Your task to perform on an android device: turn on data saver in the chrome app Image 0: 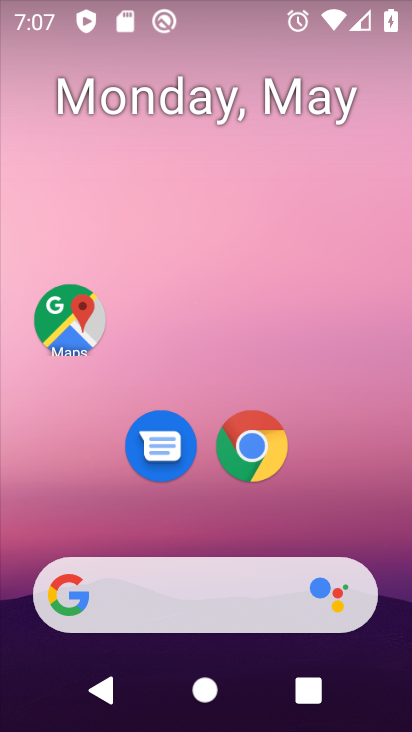
Step 0: click (251, 441)
Your task to perform on an android device: turn on data saver in the chrome app Image 1: 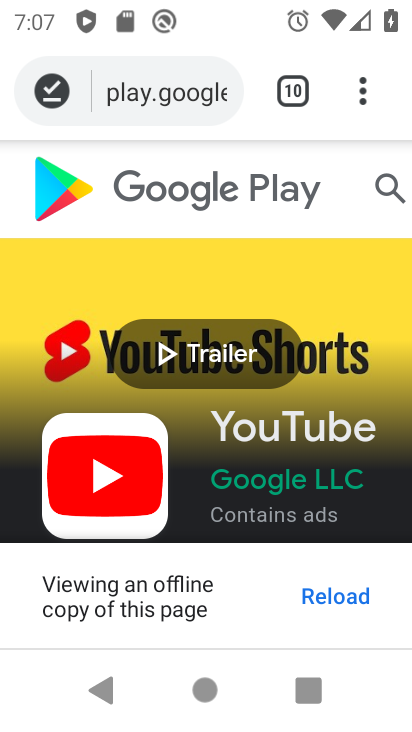
Step 1: click (359, 87)
Your task to perform on an android device: turn on data saver in the chrome app Image 2: 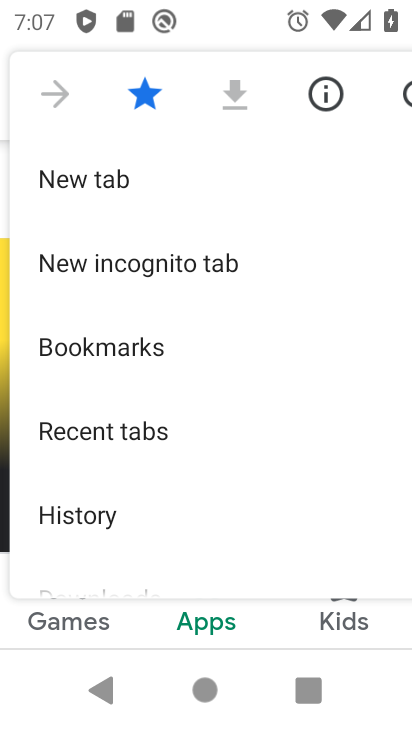
Step 2: drag from (218, 506) to (155, 202)
Your task to perform on an android device: turn on data saver in the chrome app Image 3: 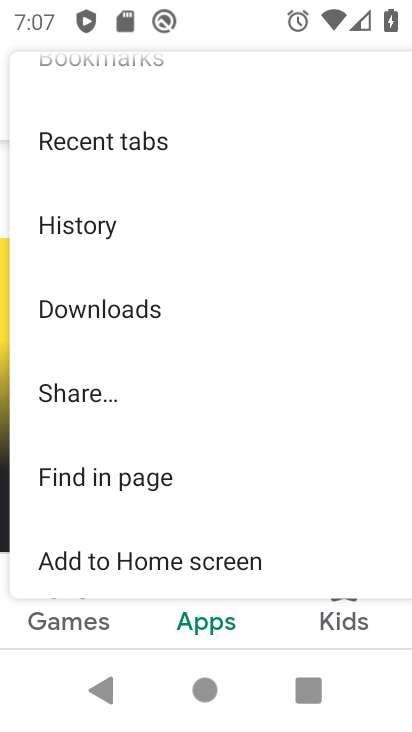
Step 3: drag from (170, 528) to (85, 45)
Your task to perform on an android device: turn on data saver in the chrome app Image 4: 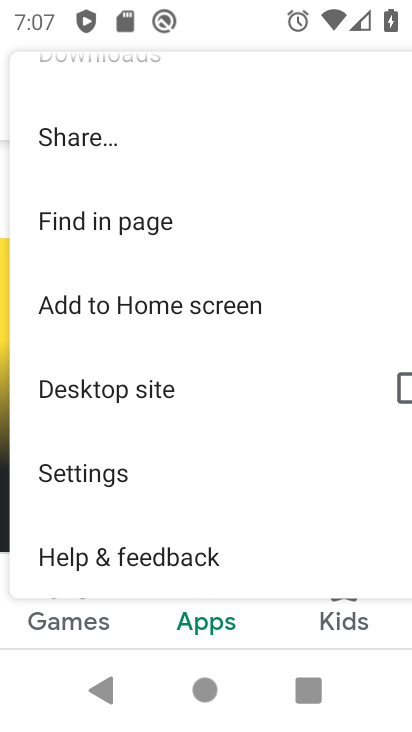
Step 4: click (87, 466)
Your task to perform on an android device: turn on data saver in the chrome app Image 5: 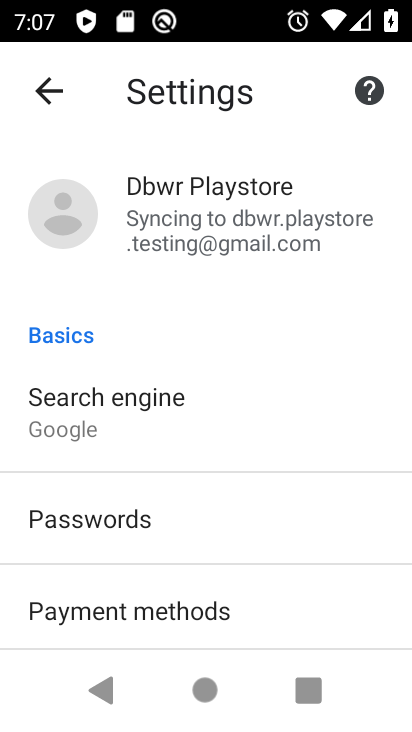
Step 5: drag from (229, 470) to (166, 179)
Your task to perform on an android device: turn on data saver in the chrome app Image 6: 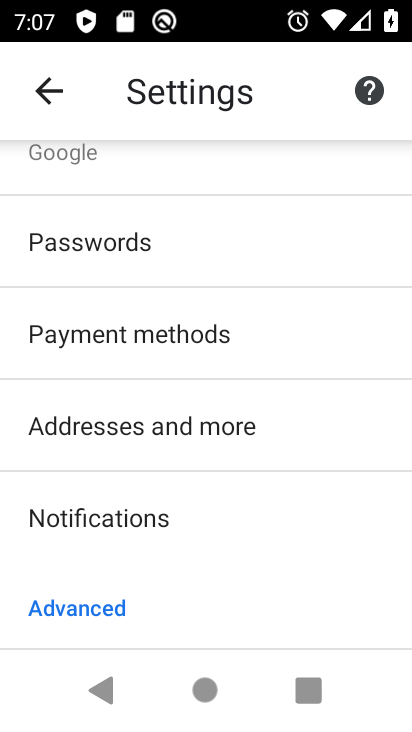
Step 6: drag from (199, 514) to (164, 277)
Your task to perform on an android device: turn on data saver in the chrome app Image 7: 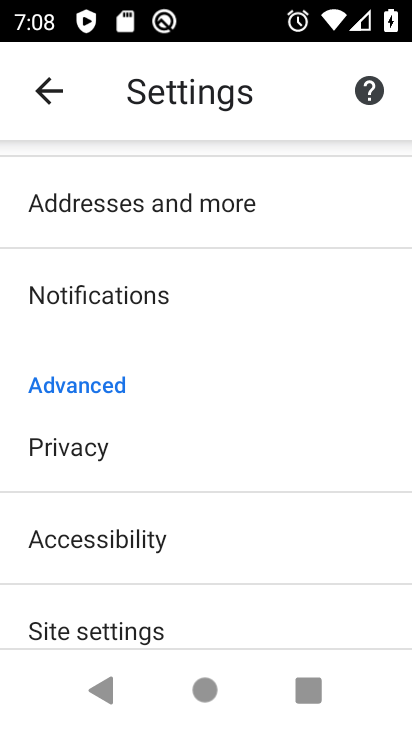
Step 7: drag from (230, 578) to (202, 337)
Your task to perform on an android device: turn on data saver in the chrome app Image 8: 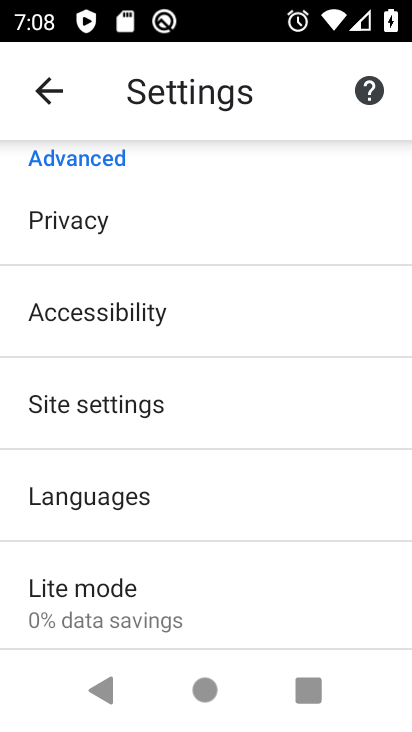
Step 8: click (102, 596)
Your task to perform on an android device: turn on data saver in the chrome app Image 9: 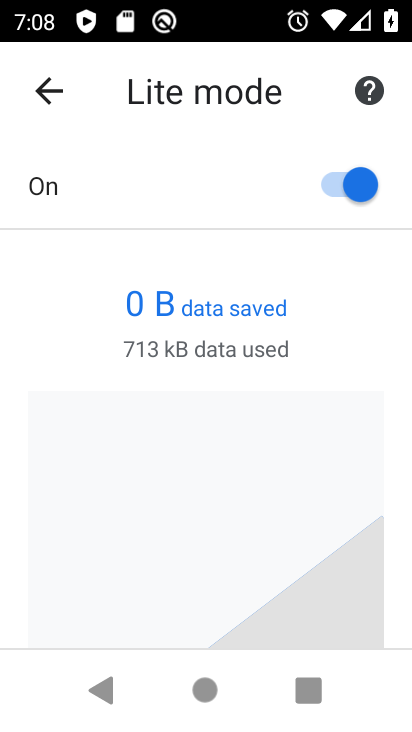
Step 9: task complete